Your task to perform on an android device: Show me recent news Image 0: 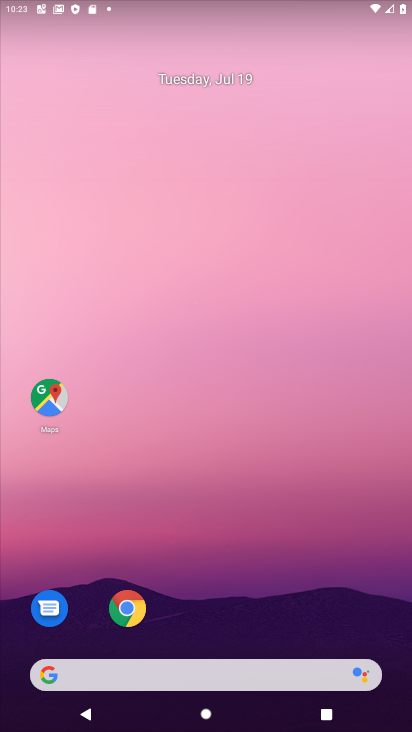
Step 0: drag from (314, 606) to (286, 110)
Your task to perform on an android device: Show me recent news Image 1: 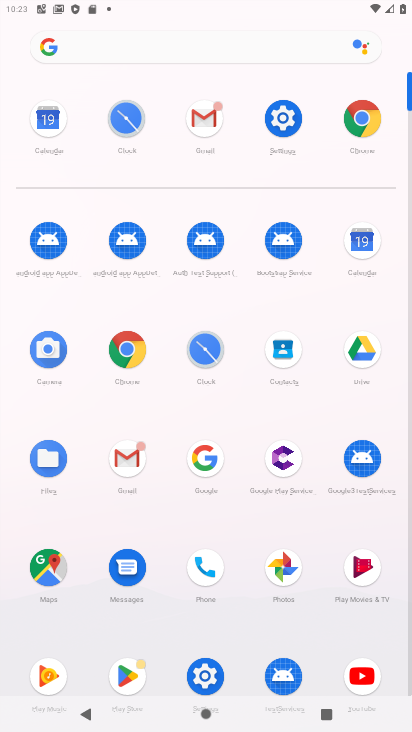
Step 1: click (368, 122)
Your task to perform on an android device: Show me recent news Image 2: 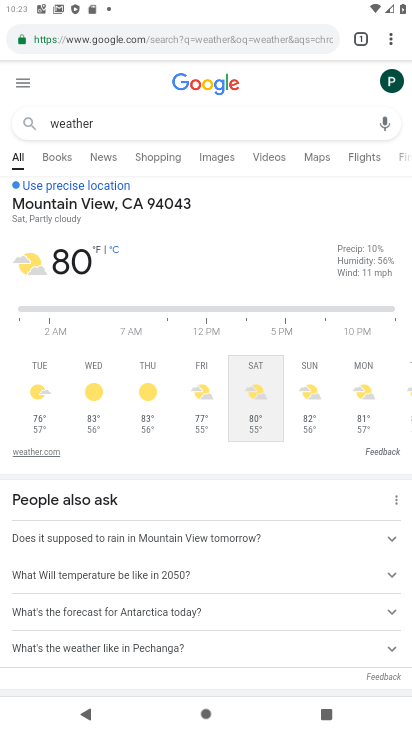
Step 2: click (224, 45)
Your task to perform on an android device: Show me recent news Image 3: 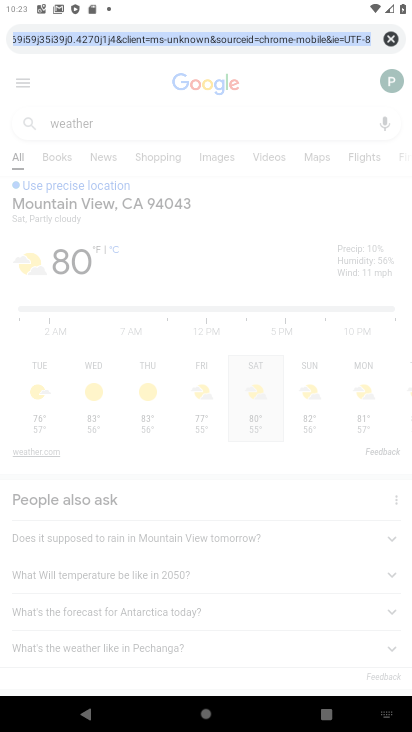
Step 3: type "news"
Your task to perform on an android device: Show me recent news Image 4: 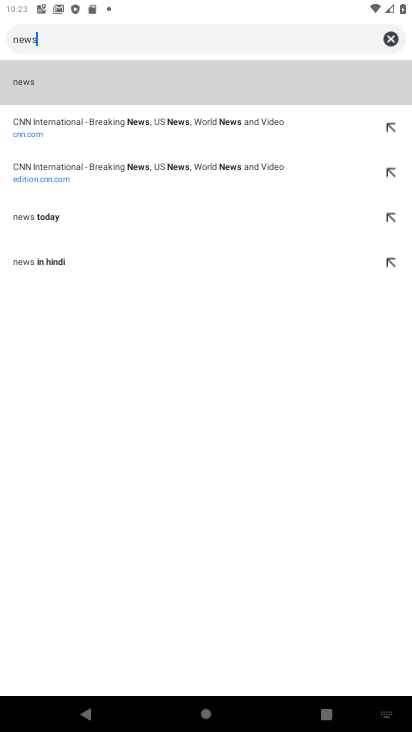
Step 4: click (28, 78)
Your task to perform on an android device: Show me recent news Image 5: 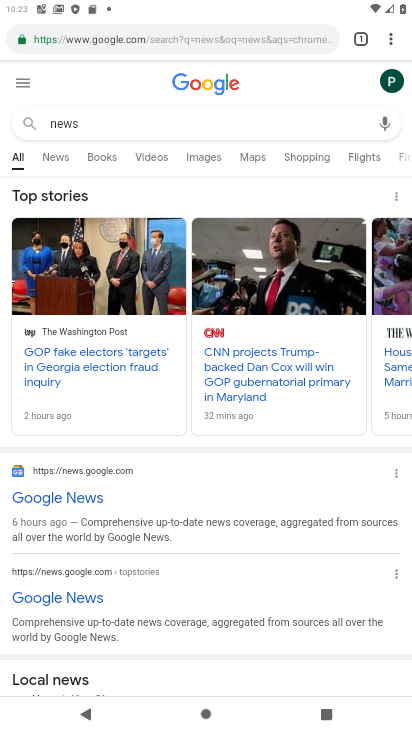
Step 5: click (69, 497)
Your task to perform on an android device: Show me recent news Image 6: 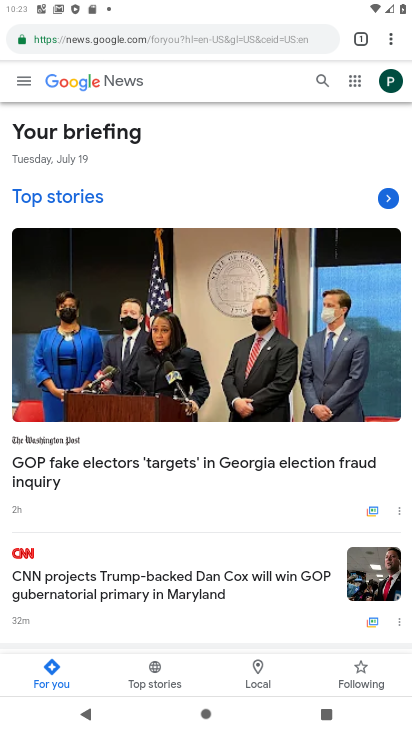
Step 6: task complete